Your task to perform on an android device: turn pop-ups on in chrome Image 0: 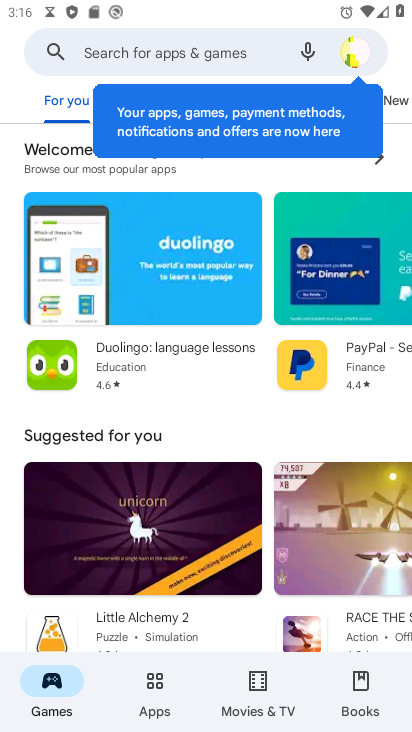
Step 0: press home button
Your task to perform on an android device: turn pop-ups on in chrome Image 1: 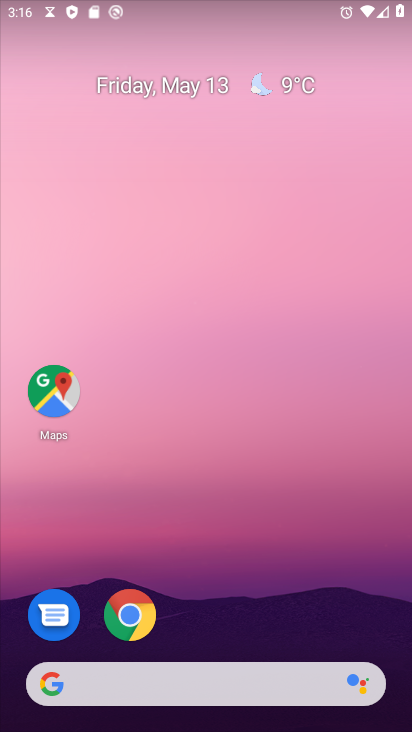
Step 1: click (130, 620)
Your task to perform on an android device: turn pop-ups on in chrome Image 2: 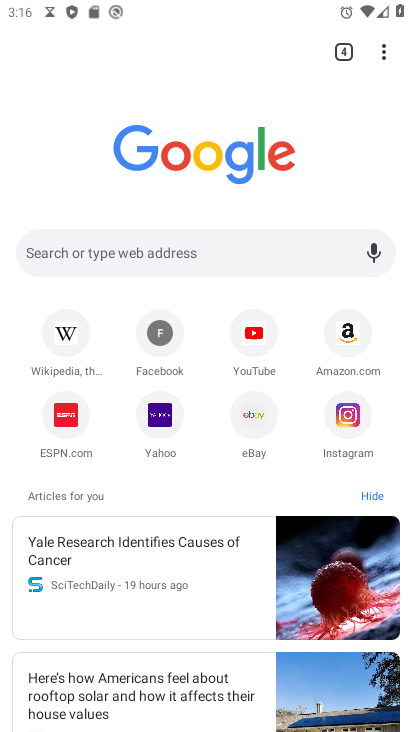
Step 2: click (383, 55)
Your task to perform on an android device: turn pop-ups on in chrome Image 3: 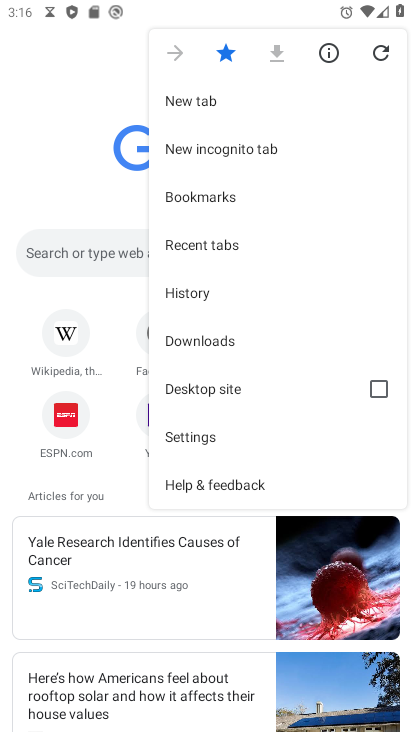
Step 3: click (198, 437)
Your task to perform on an android device: turn pop-ups on in chrome Image 4: 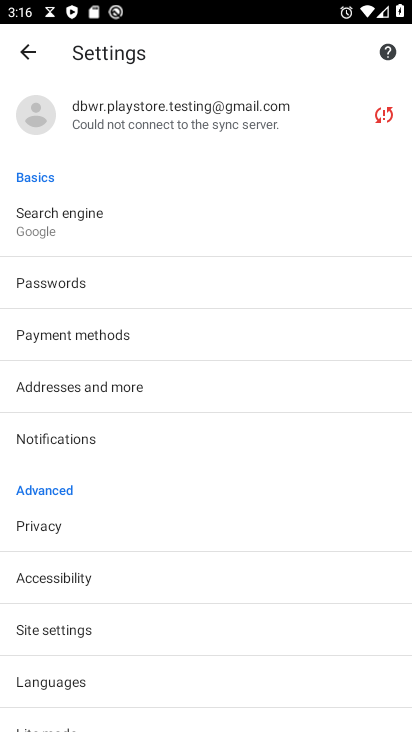
Step 4: click (56, 627)
Your task to perform on an android device: turn pop-ups on in chrome Image 5: 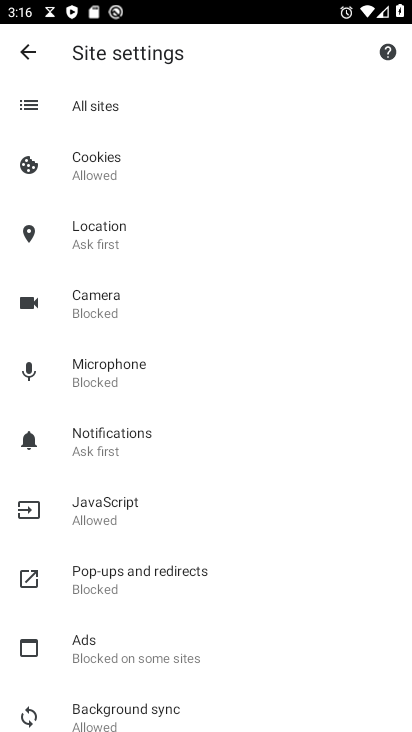
Step 5: drag from (133, 652) to (134, 515)
Your task to perform on an android device: turn pop-ups on in chrome Image 6: 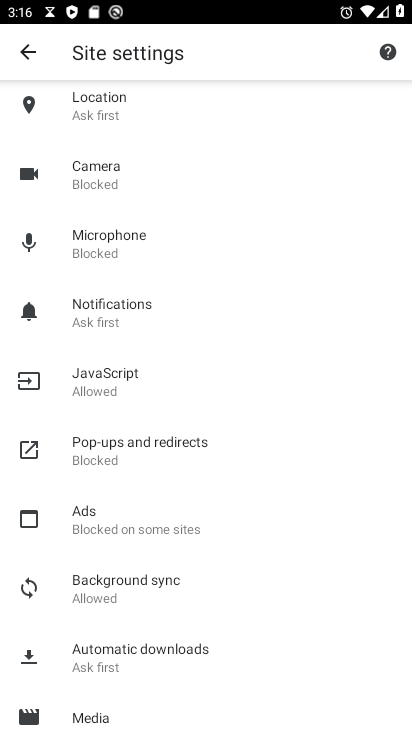
Step 6: click (97, 443)
Your task to perform on an android device: turn pop-ups on in chrome Image 7: 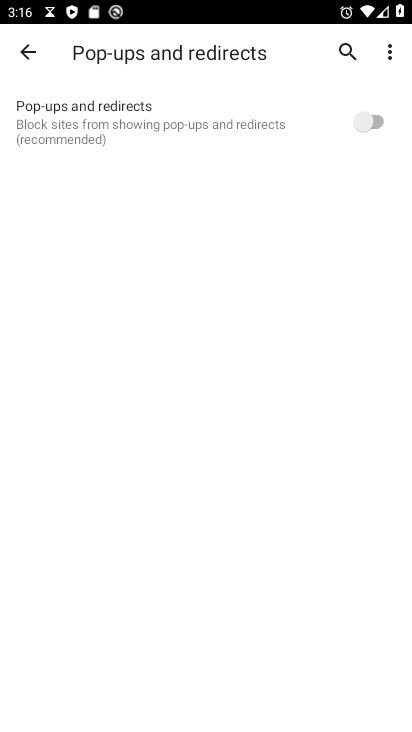
Step 7: click (384, 117)
Your task to perform on an android device: turn pop-ups on in chrome Image 8: 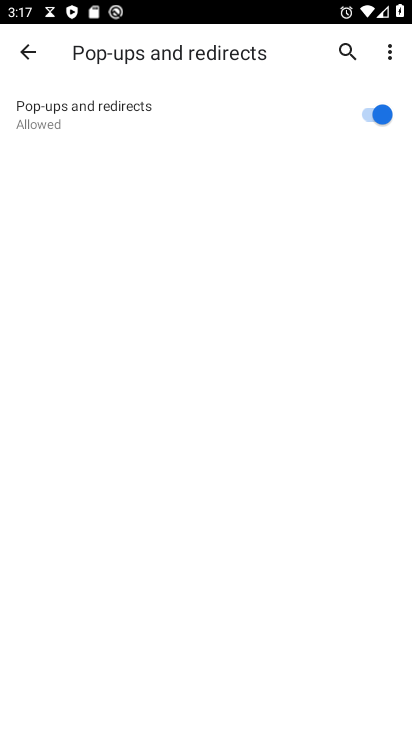
Step 8: task complete